Your task to perform on an android device: What's on my calendar tomorrow? Image 0: 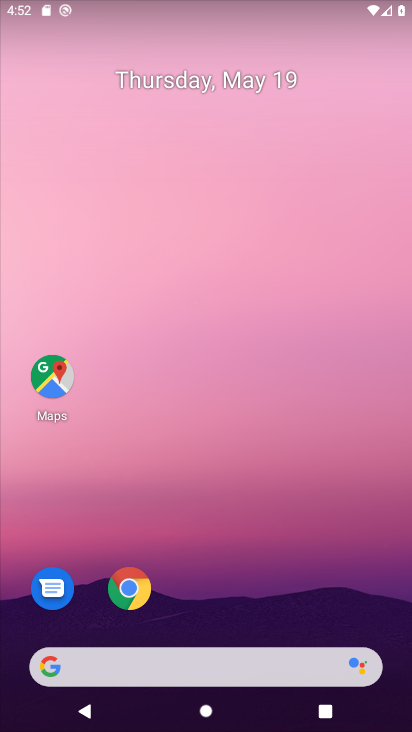
Step 0: drag from (288, 623) to (312, 260)
Your task to perform on an android device: What's on my calendar tomorrow? Image 1: 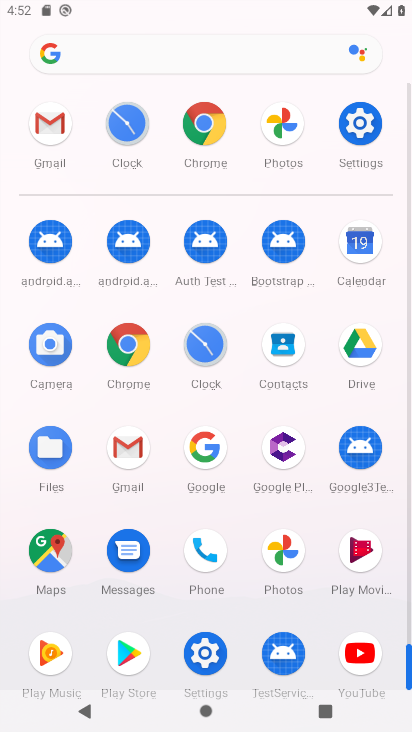
Step 1: click (358, 267)
Your task to perform on an android device: What's on my calendar tomorrow? Image 2: 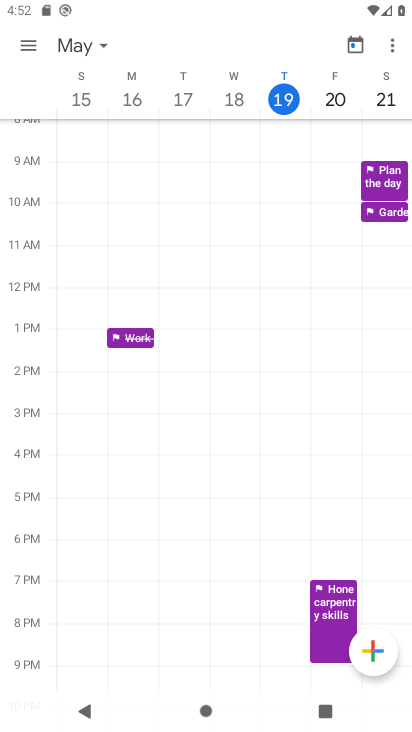
Step 2: click (29, 50)
Your task to perform on an android device: What's on my calendar tomorrow? Image 3: 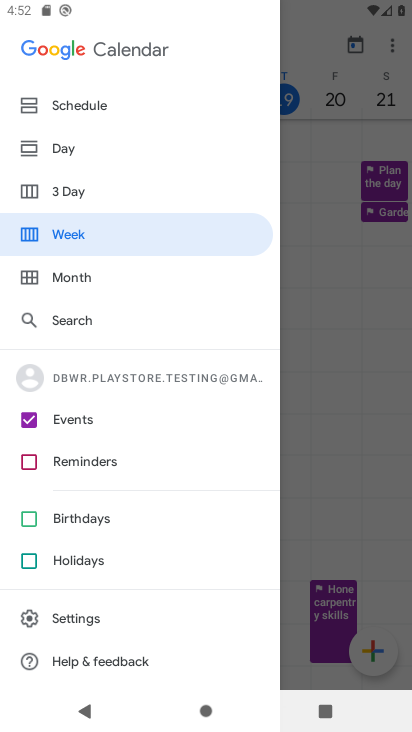
Step 3: click (90, 202)
Your task to perform on an android device: What's on my calendar tomorrow? Image 4: 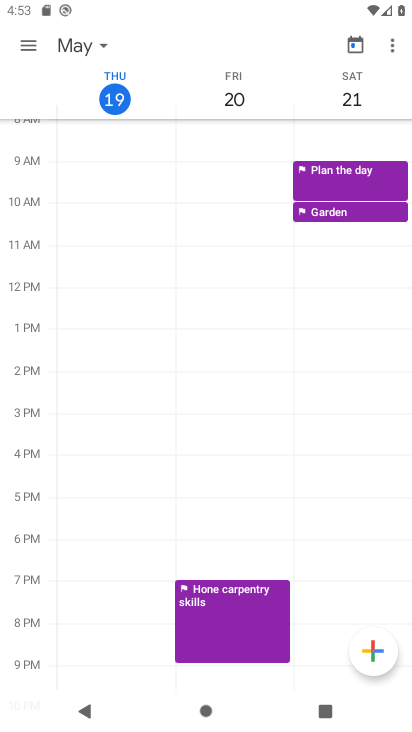
Step 4: task complete